Your task to perform on an android device: Open Amazon Image 0: 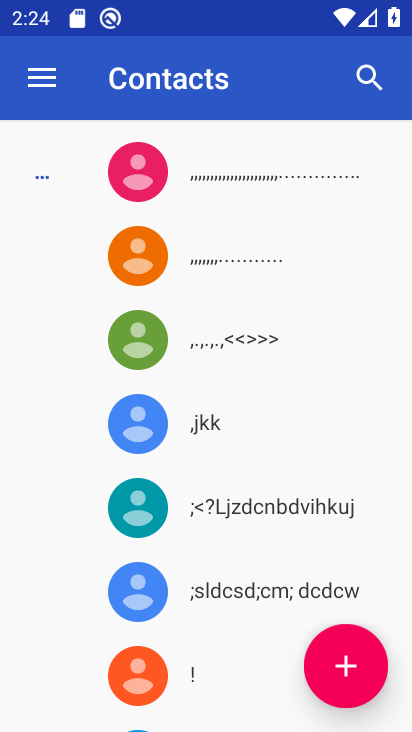
Step 0: press home button
Your task to perform on an android device: Open Amazon Image 1: 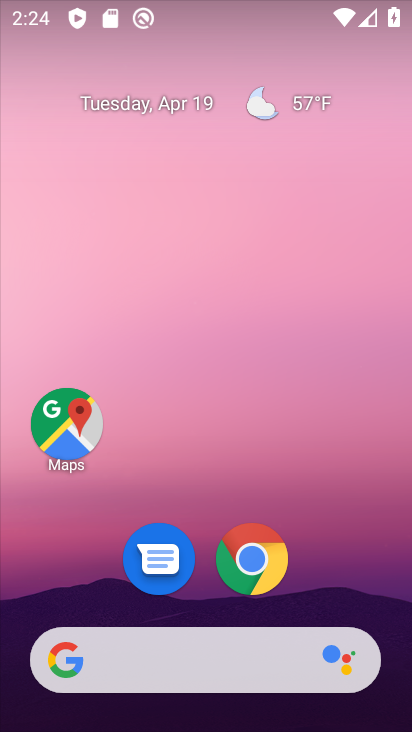
Step 1: drag from (389, 594) to (389, 114)
Your task to perform on an android device: Open Amazon Image 2: 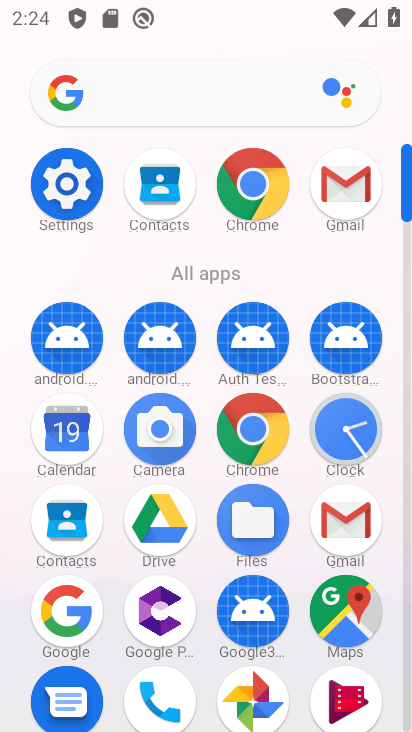
Step 2: click (254, 429)
Your task to perform on an android device: Open Amazon Image 3: 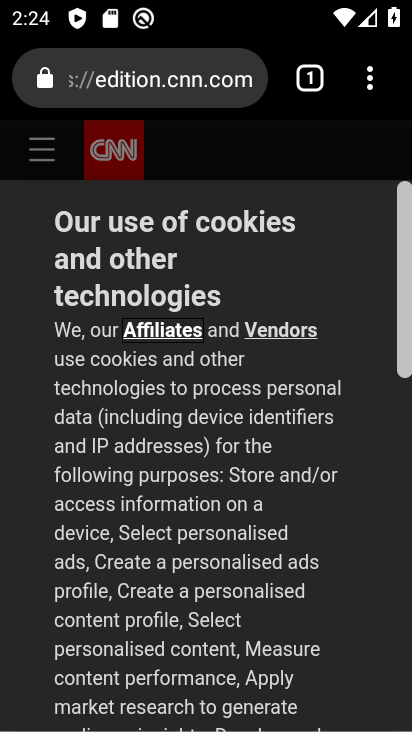
Step 3: press back button
Your task to perform on an android device: Open Amazon Image 4: 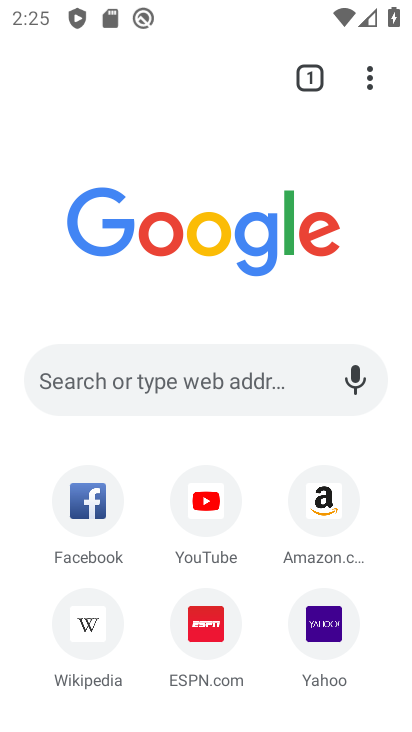
Step 4: click (331, 510)
Your task to perform on an android device: Open Amazon Image 5: 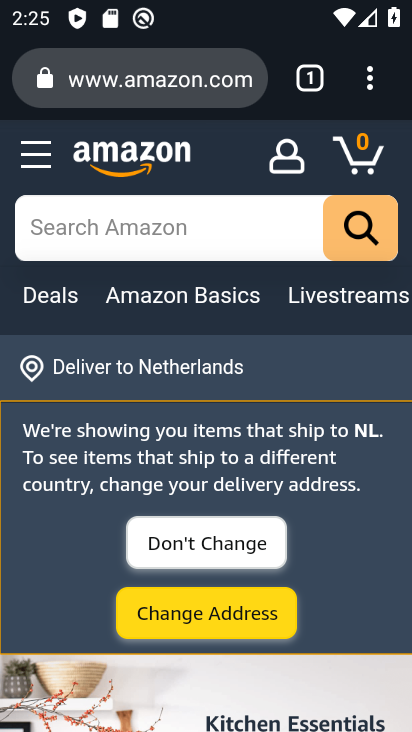
Step 5: task complete